Your task to perform on an android device: Go to internet settings Image 0: 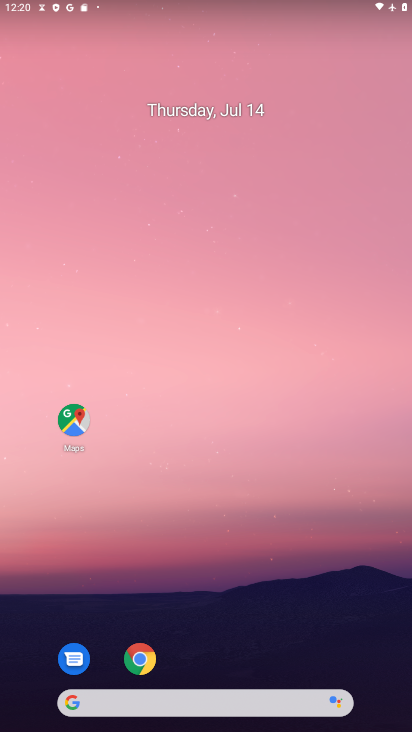
Step 0: drag from (93, 537) to (188, 178)
Your task to perform on an android device: Go to internet settings Image 1: 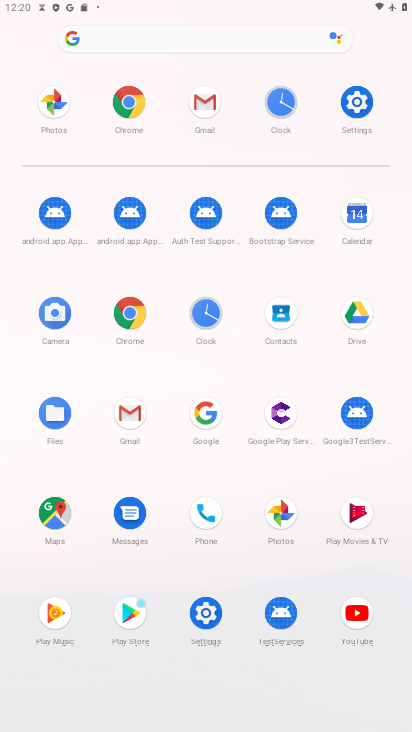
Step 1: click (204, 594)
Your task to perform on an android device: Go to internet settings Image 2: 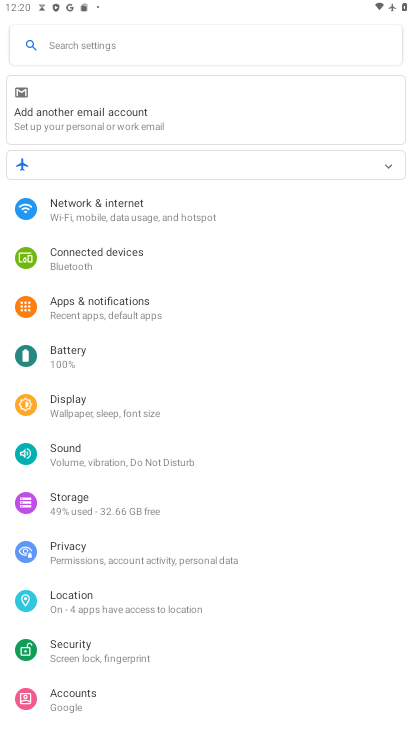
Step 2: click (153, 213)
Your task to perform on an android device: Go to internet settings Image 3: 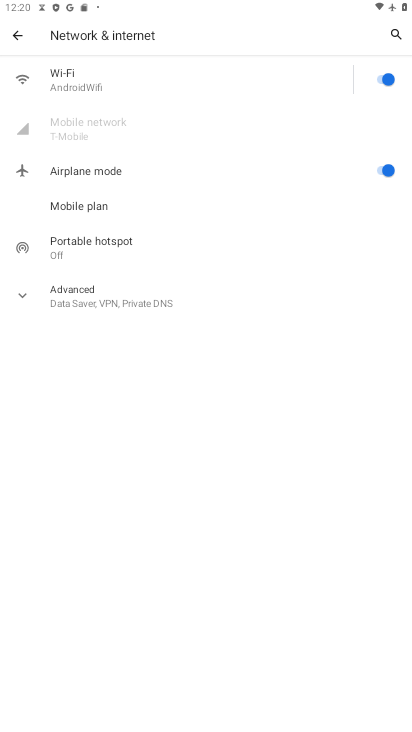
Step 3: task complete